Your task to perform on an android device: find photos in the google photos app Image 0: 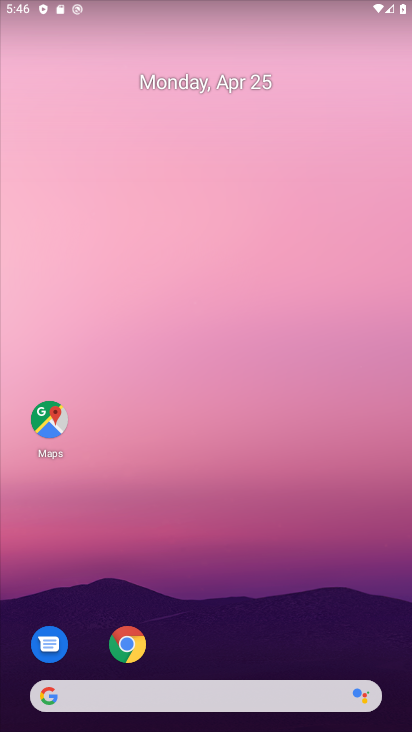
Step 0: drag from (185, 370) to (217, 62)
Your task to perform on an android device: find photos in the google photos app Image 1: 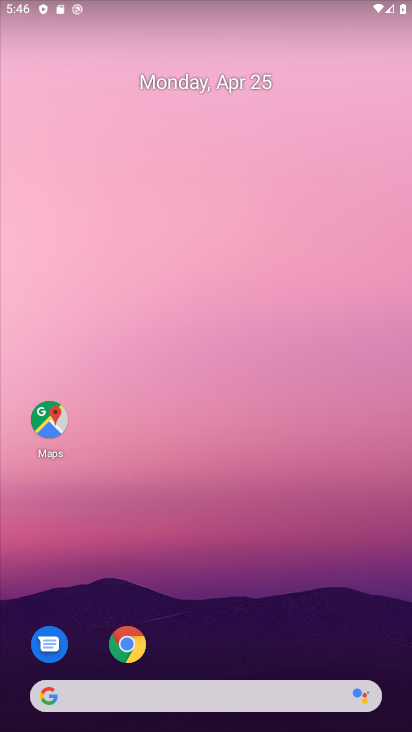
Step 1: drag from (299, 625) to (269, 34)
Your task to perform on an android device: find photos in the google photos app Image 2: 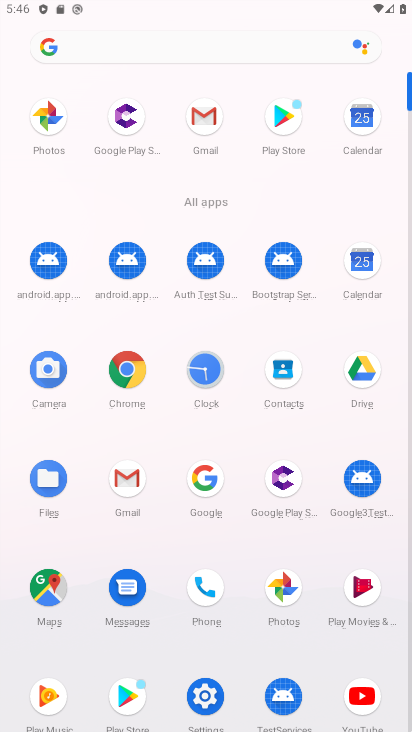
Step 2: click (93, 629)
Your task to perform on an android device: find photos in the google photos app Image 3: 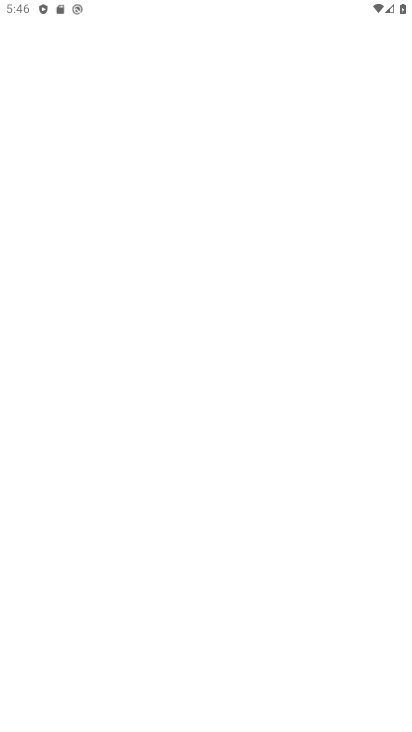
Step 3: press home button
Your task to perform on an android device: find photos in the google photos app Image 4: 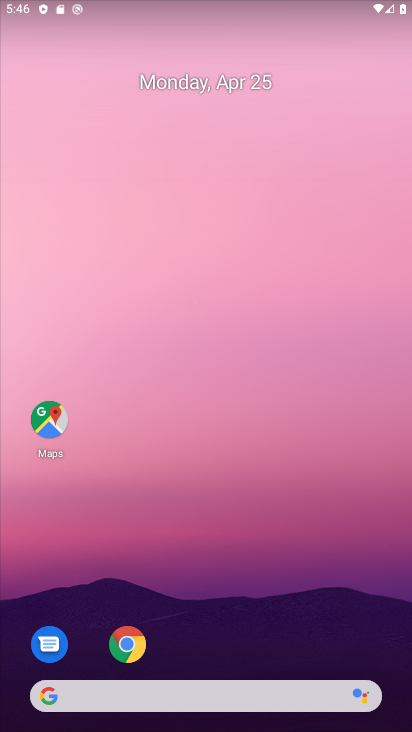
Step 4: drag from (279, 631) to (200, 53)
Your task to perform on an android device: find photos in the google photos app Image 5: 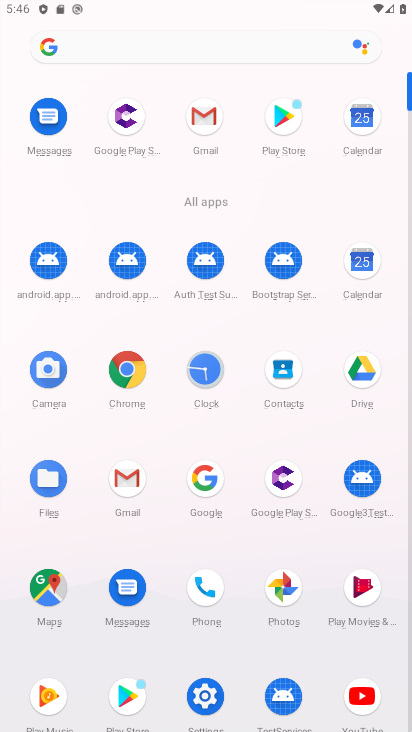
Step 5: click (276, 596)
Your task to perform on an android device: find photos in the google photos app Image 6: 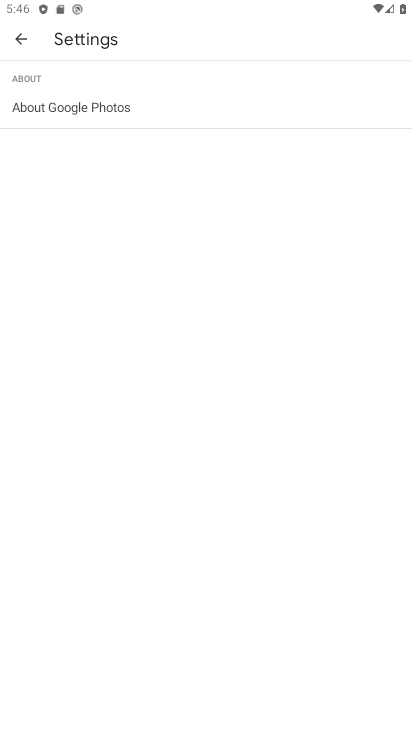
Step 6: click (28, 39)
Your task to perform on an android device: find photos in the google photos app Image 7: 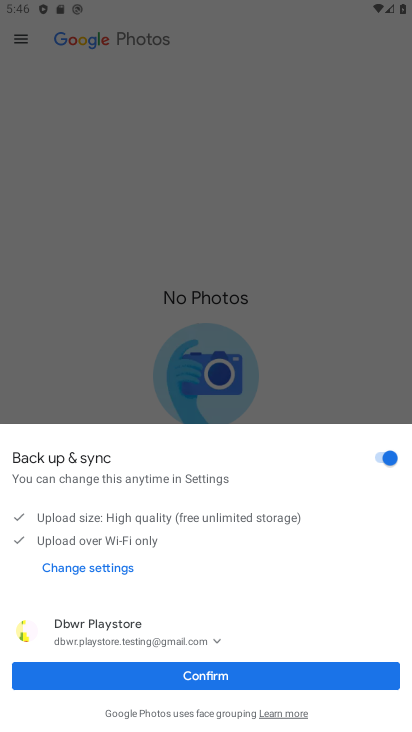
Step 7: click (217, 672)
Your task to perform on an android device: find photos in the google photos app Image 8: 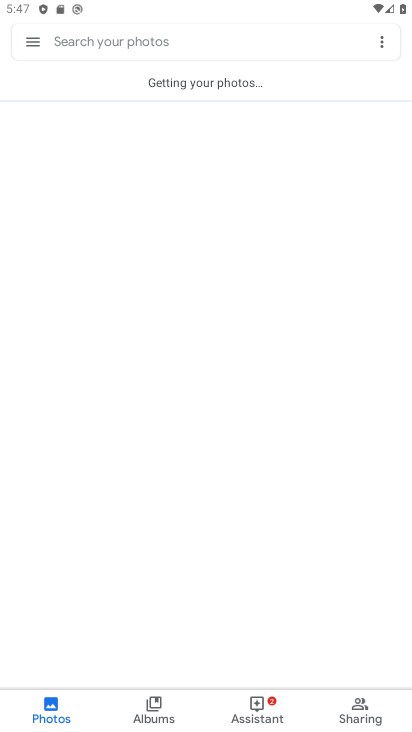
Step 8: task complete